Your task to perform on an android device: Show me the alarms in the clock app Image 0: 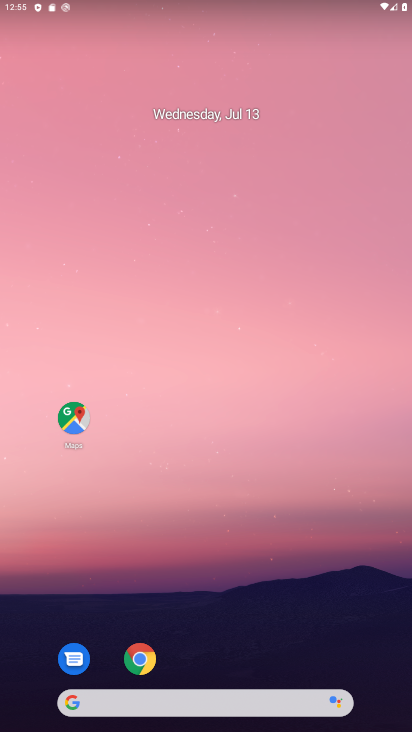
Step 0: drag from (64, 678) to (351, 15)
Your task to perform on an android device: Show me the alarms in the clock app Image 1: 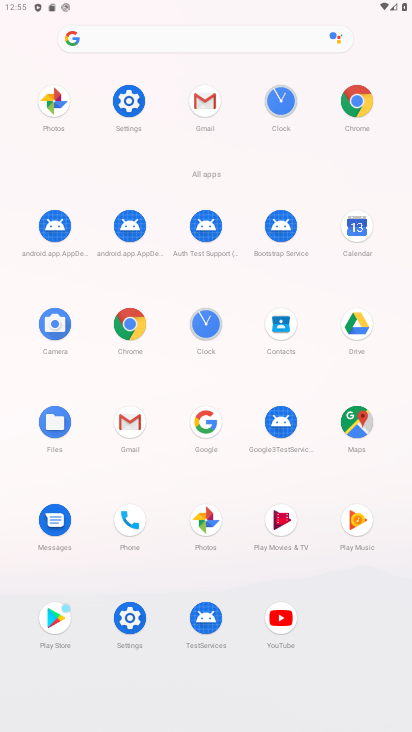
Step 1: click (187, 329)
Your task to perform on an android device: Show me the alarms in the clock app Image 2: 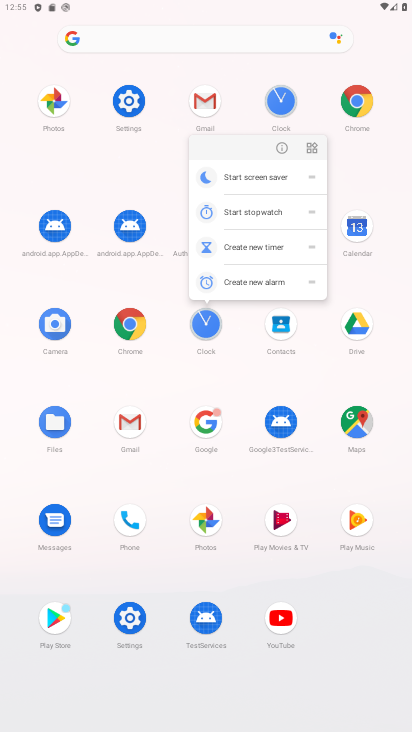
Step 2: click (209, 324)
Your task to perform on an android device: Show me the alarms in the clock app Image 3: 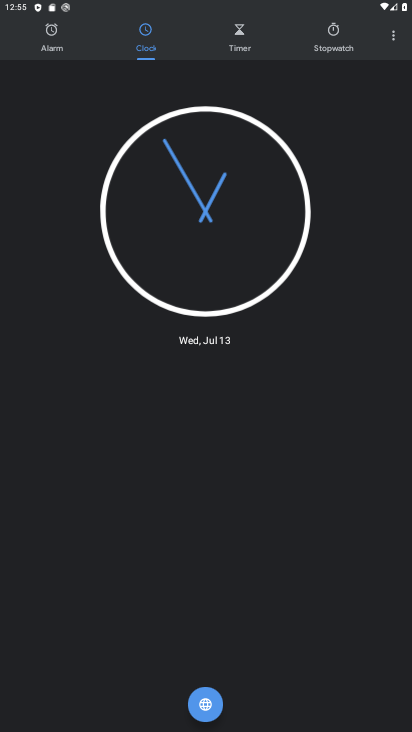
Step 3: click (48, 29)
Your task to perform on an android device: Show me the alarms in the clock app Image 4: 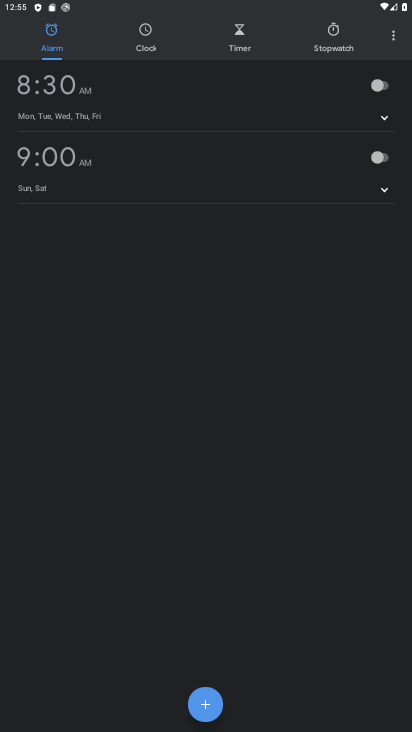
Step 4: click (382, 81)
Your task to perform on an android device: Show me the alarms in the clock app Image 5: 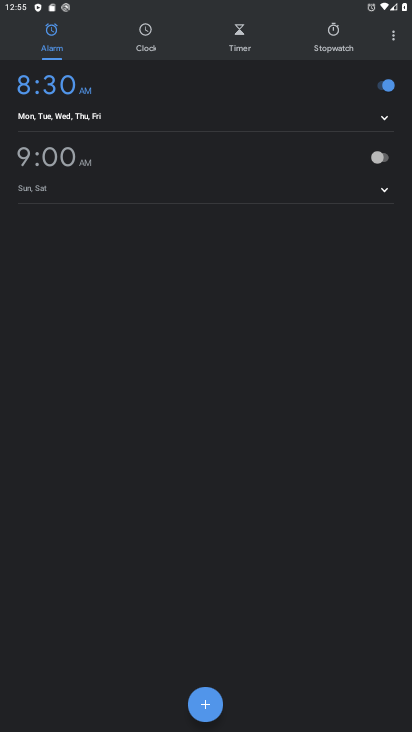
Step 5: task complete